Your task to perform on an android device: install app "Skype" Image 0: 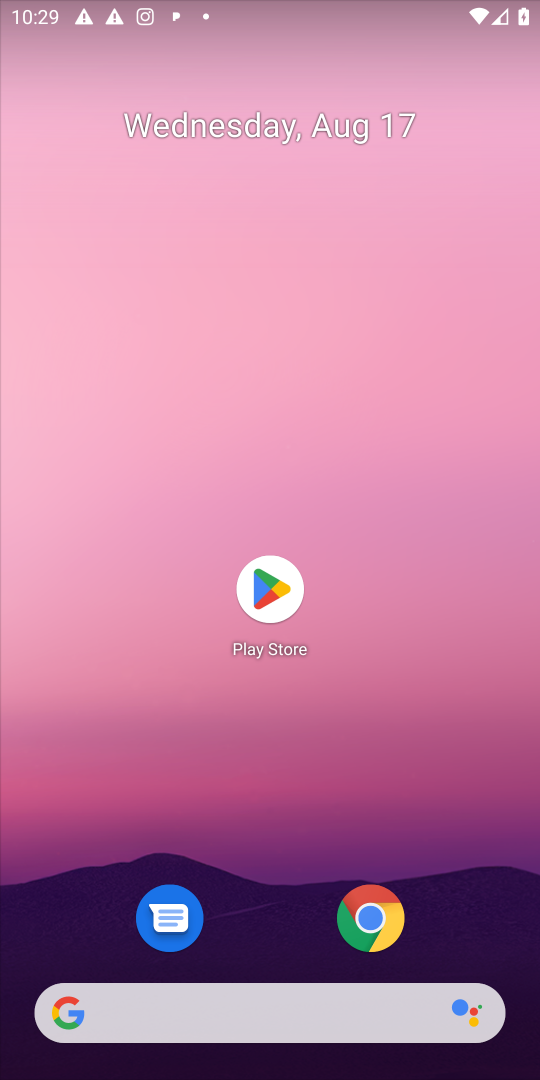
Step 0: press home button
Your task to perform on an android device: install app "Skype" Image 1: 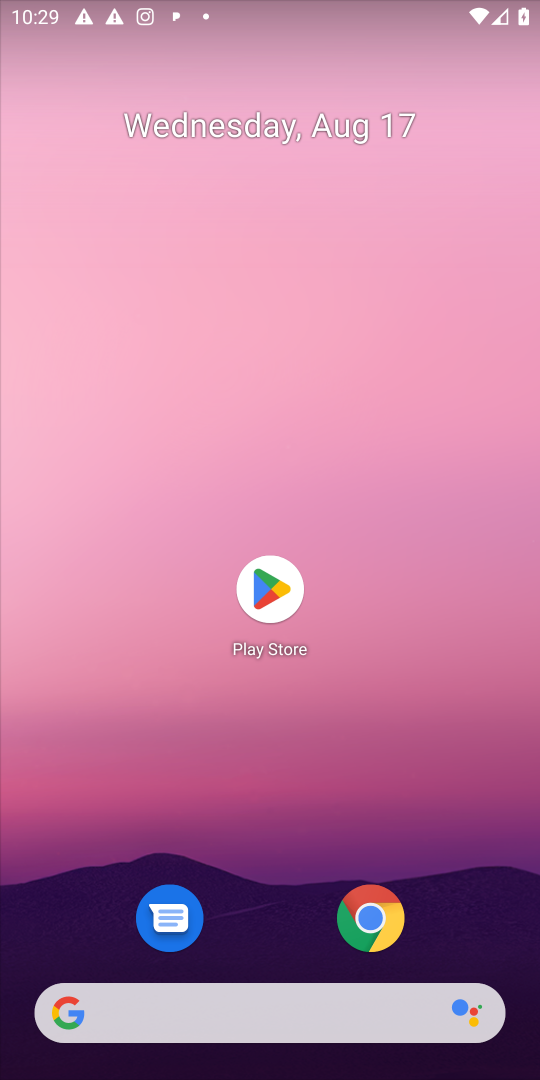
Step 1: click (265, 584)
Your task to perform on an android device: install app "Skype" Image 2: 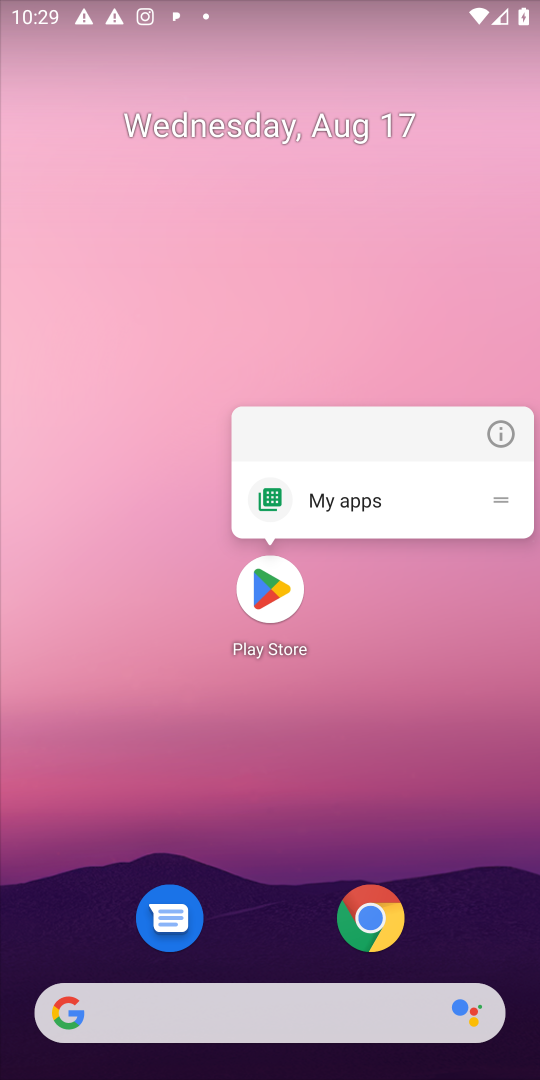
Step 2: click (265, 586)
Your task to perform on an android device: install app "Skype" Image 3: 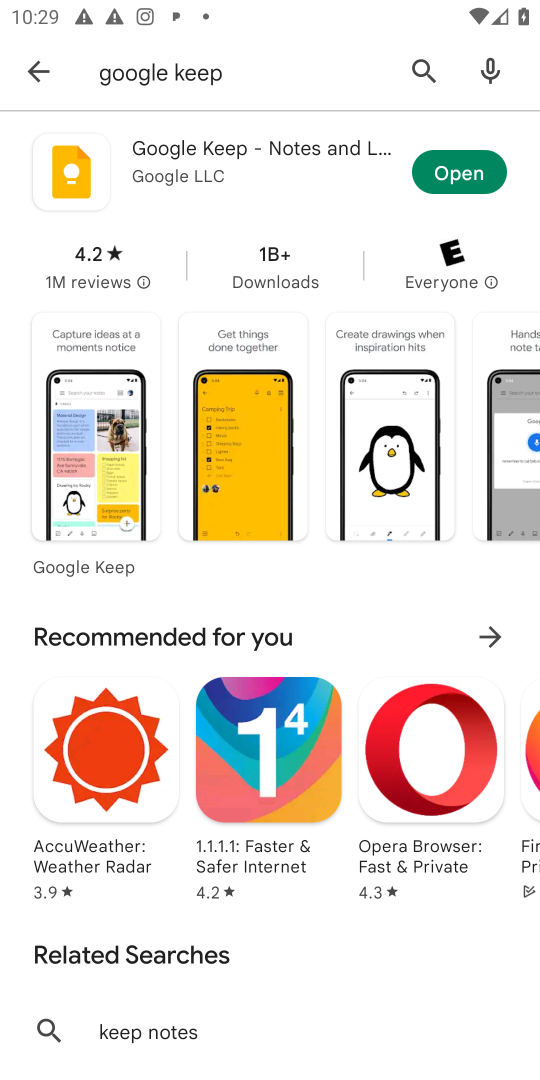
Step 3: click (418, 68)
Your task to perform on an android device: install app "Skype" Image 4: 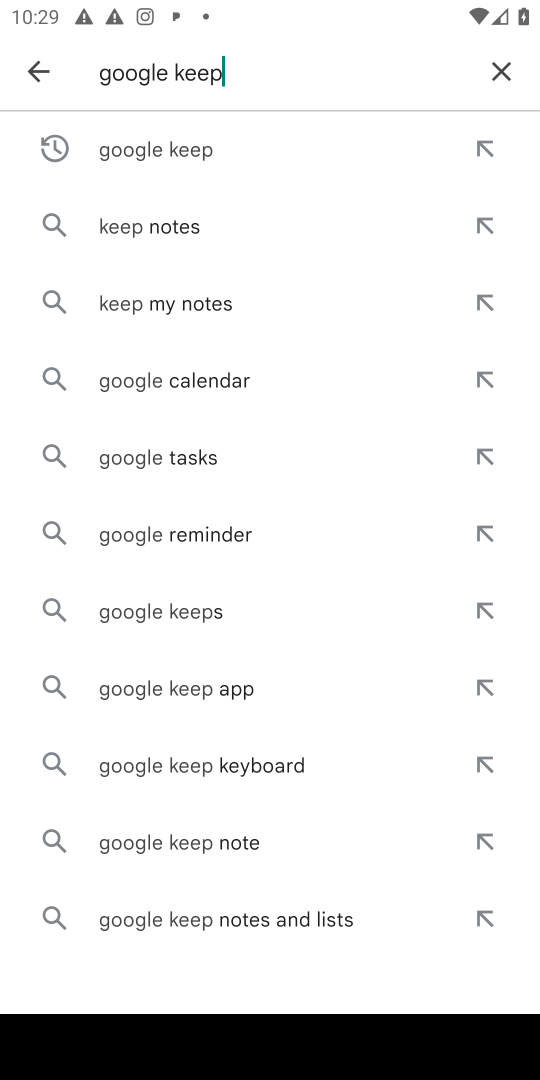
Step 4: click (500, 68)
Your task to perform on an android device: install app "Skype" Image 5: 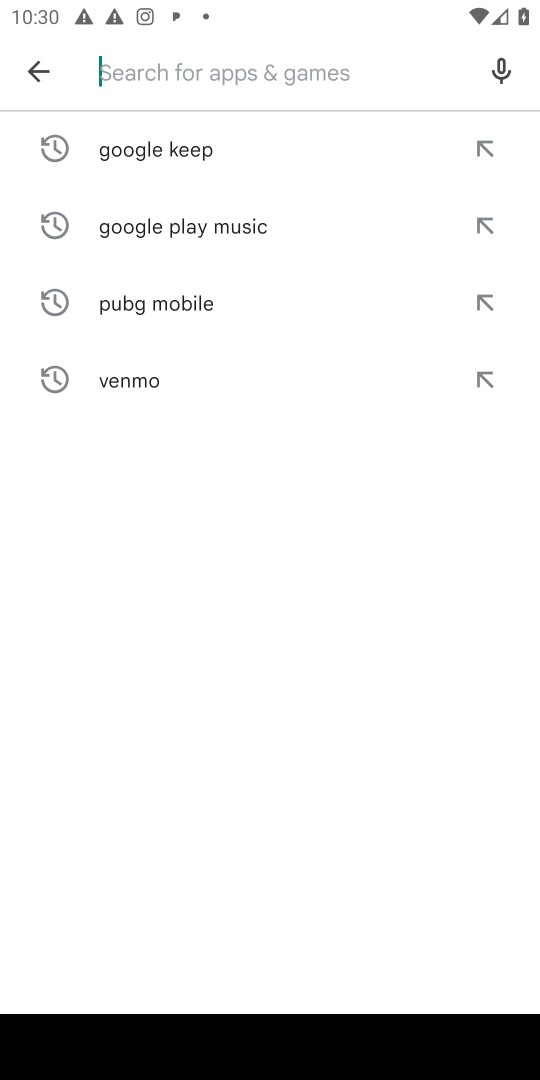
Step 5: type "Skype"
Your task to perform on an android device: install app "Skype" Image 6: 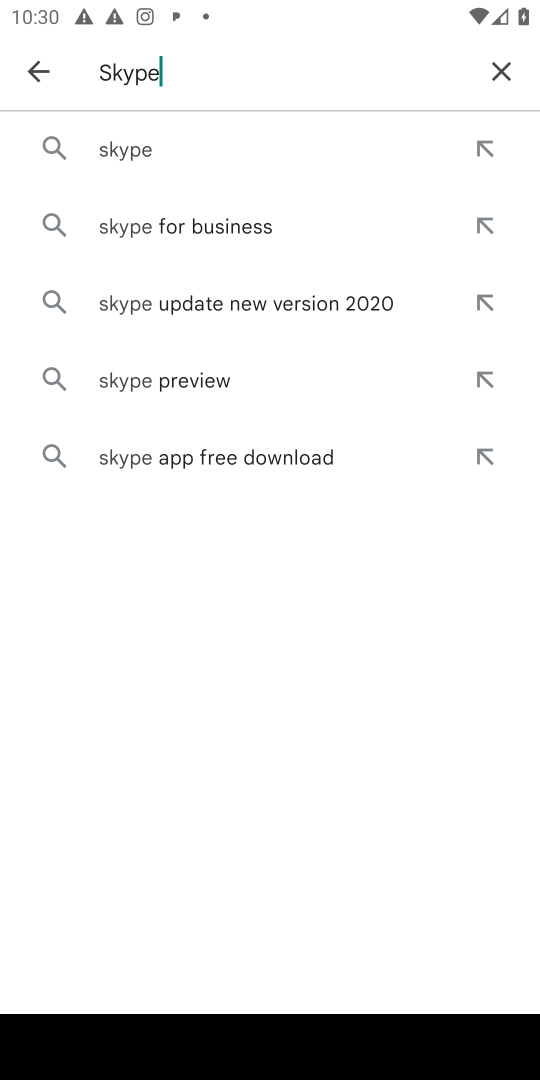
Step 6: click (117, 144)
Your task to perform on an android device: install app "Skype" Image 7: 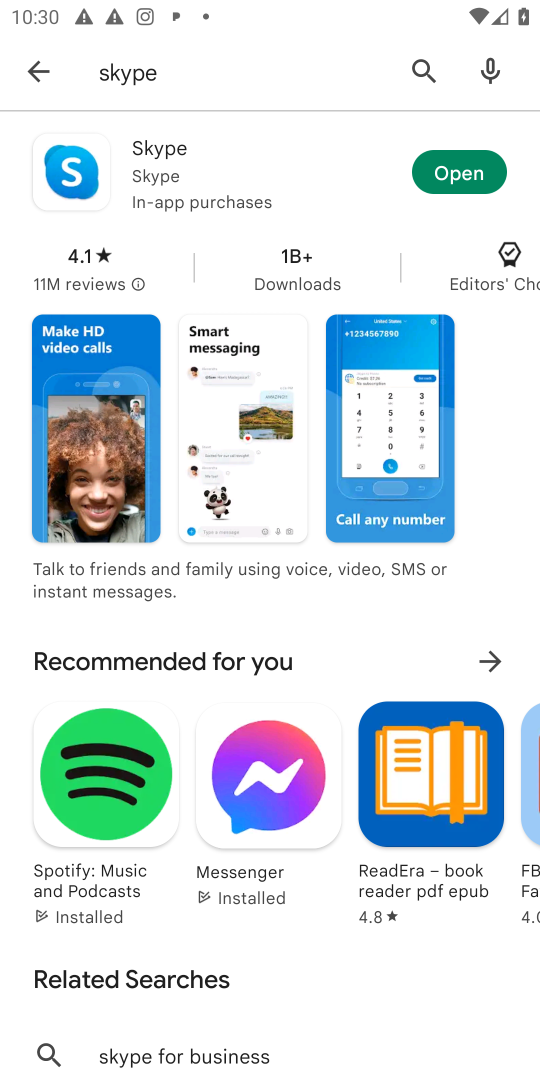
Step 7: task complete